Your task to perform on an android device: change the clock style Image 0: 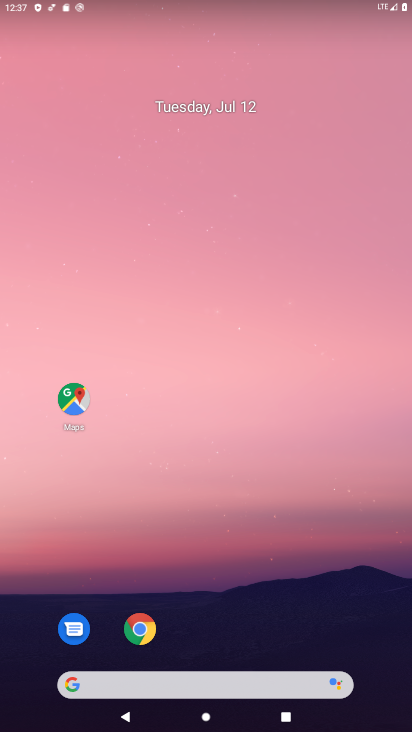
Step 0: drag from (268, 683) to (241, 39)
Your task to perform on an android device: change the clock style Image 1: 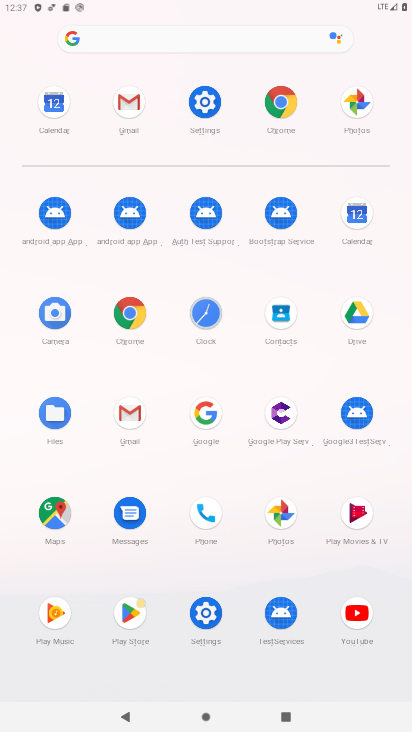
Step 1: click (208, 317)
Your task to perform on an android device: change the clock style Image 2: 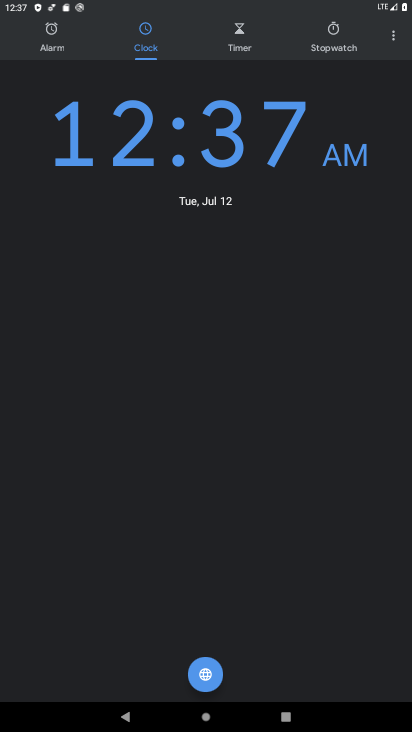
Step 2: click (390, 38)
Your task to perform on an android device: change the clock style Image 3: 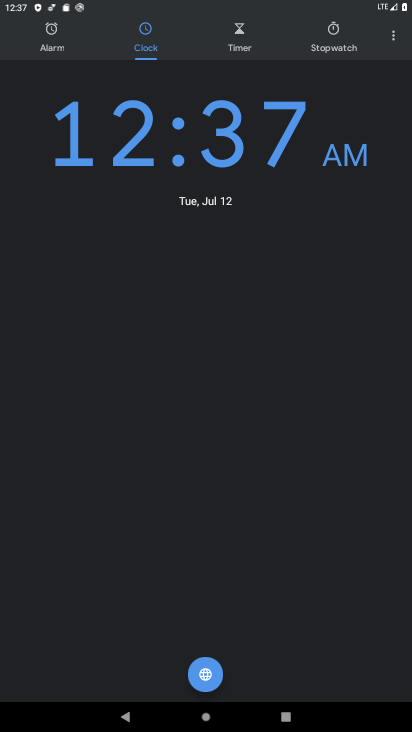
Step 3: click (388, 33)
Your task to perform on an android device: change the clock style Image 4: 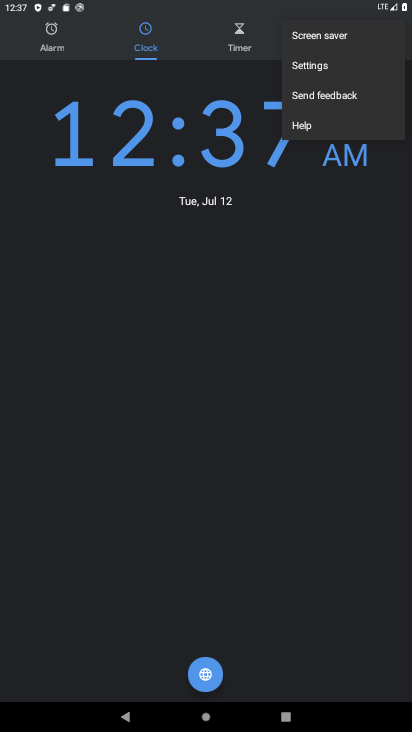
Step 4: click (339, 62)
Your task to perform on an android device: change the clock style Image 5: 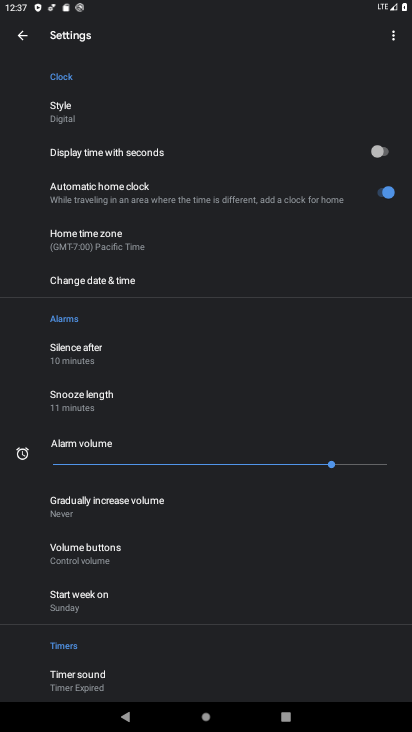
Step 5: click (83, 111)
Your task to perform on an android device: change the clock style Image 6: 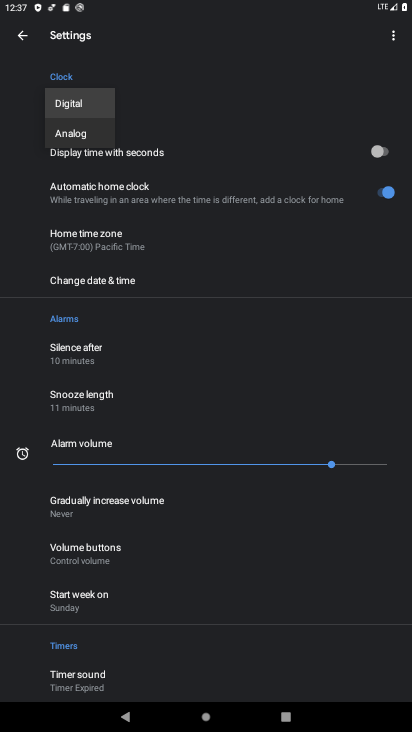
Step 6: click (96, 135)
Your task to perform on an android device: change the clock style Image 7: 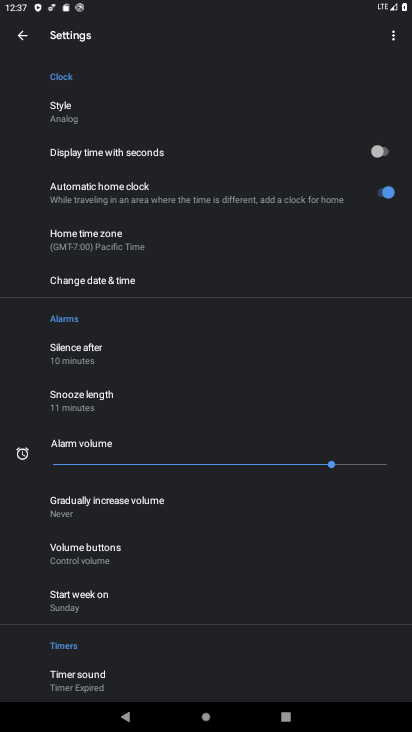
Step 7: task complete